Your task to perform on an android device: star an email in the gmail app Image 0: 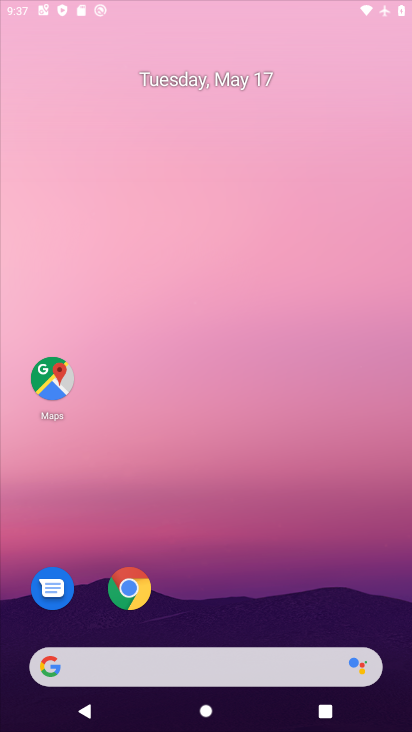
Step 0: click (196, 663)
Your task to perform on an android device: star an email in the gmail app Image 1: 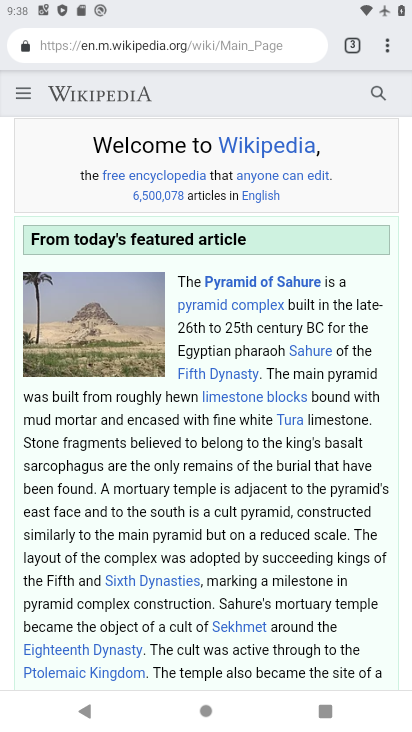
Step 1: press home button
Your task to perform on an android device: star an email in the gmail app Image 2: 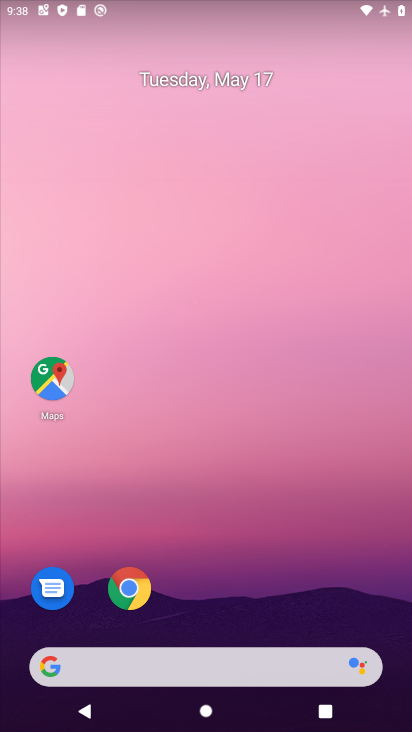
Step 2: drag from (196, 634) to (208, 26)
Your task to perform on an android device: star an email in the gmail app Image 3: 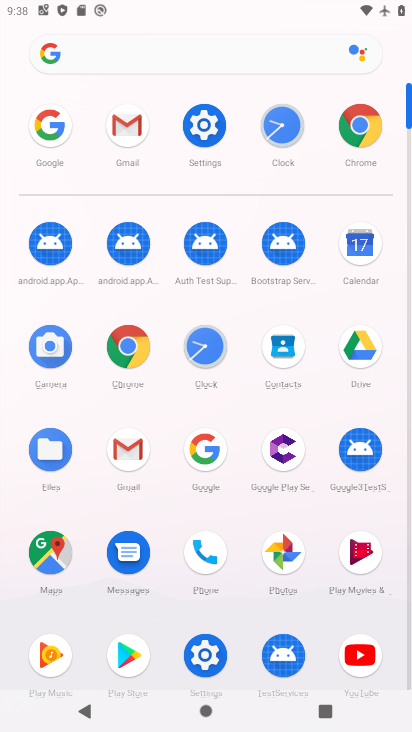
Step 3: click (127, 441)
Your task to perform on an android device: star an email in the gmail app Image 4: 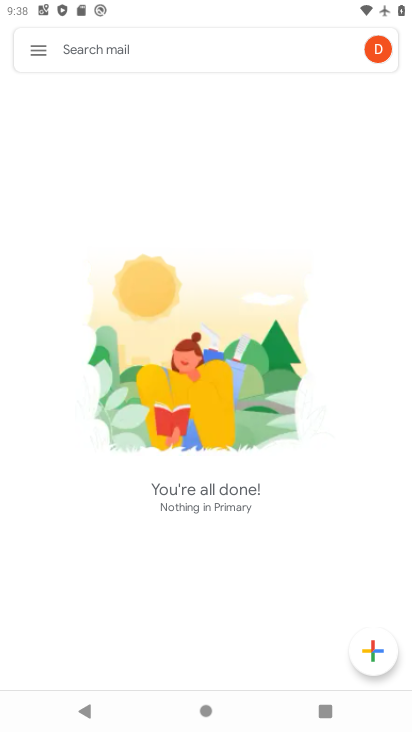
Step 4: click (34, 49)
Your task to perform on an android device: star an email in the gmail app Image 5: 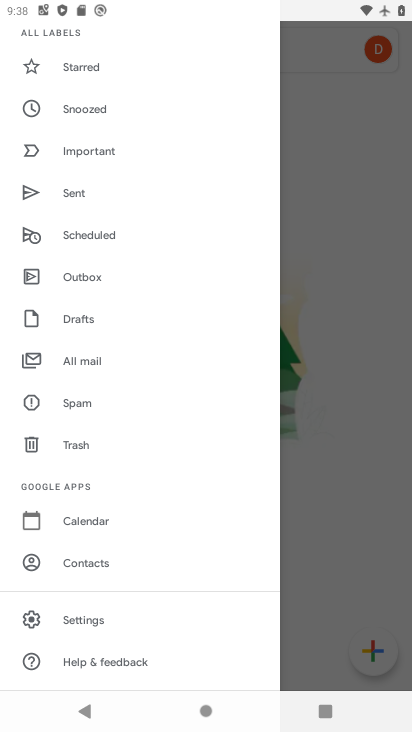
Step 5: drag from (103, 81) to (101, 311)
Your task to perform on an android device: star an email in the gmail app Image 6: 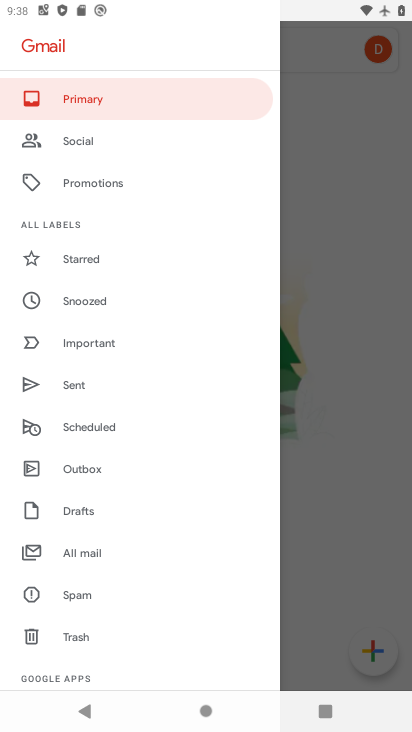
Step 6: click (77, 537)
Your task to perform on an android device: star an email in the gmail app Image 7: 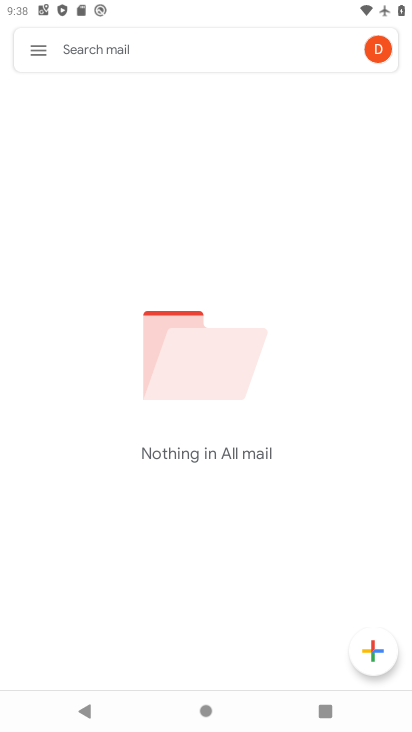
Step 7: task complete